Your task to perform on an android device: Open display settings Image 0: 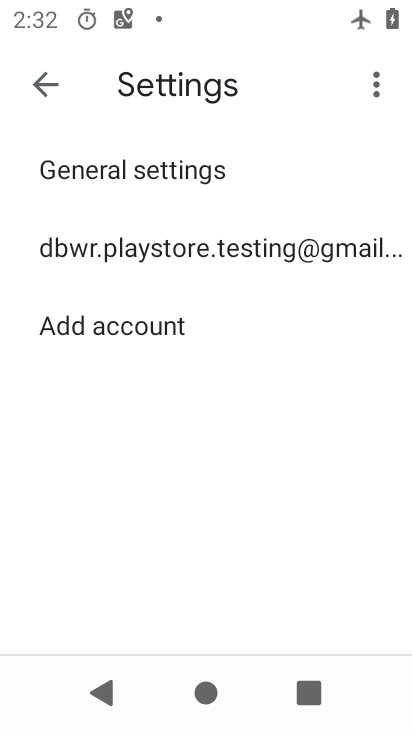
Step 0: press home button
Your task to perform on an android device: Open display settings Image 1: 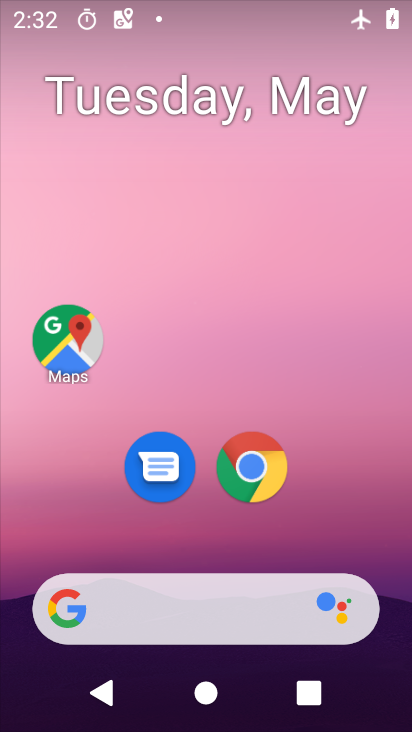
Step 1: drag from (350, 522) to (352, 184)
Your task to perform on an android device: Open display settings Image 2: 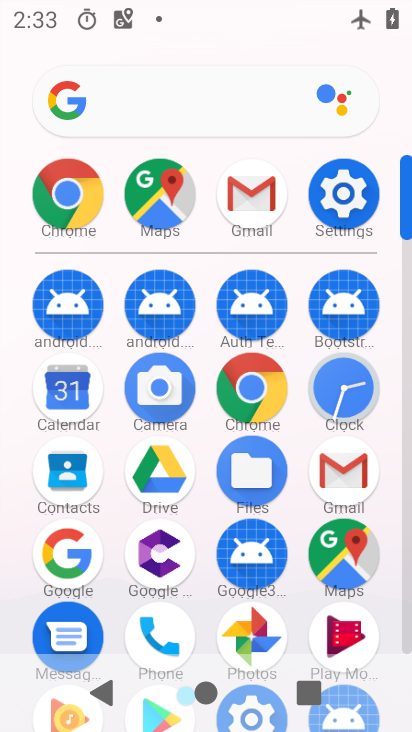
Step 2: click (359, 215)
Your task to perform on an android device: Open display settings Image 3: 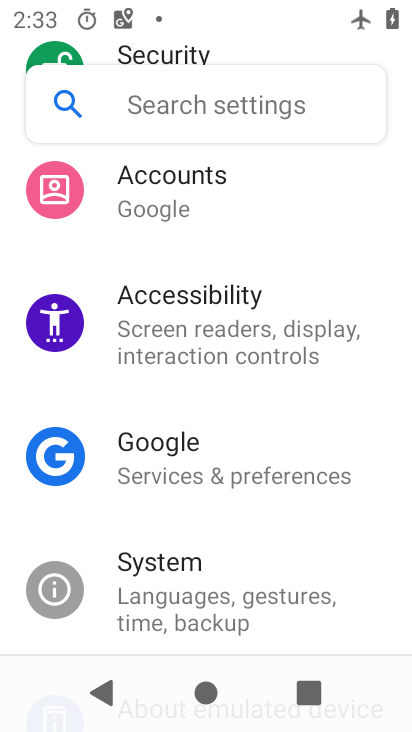
Step 3: drag from (341, 262) to (342, 369)
Your task to perform on an android device: Open display settings Image 4: 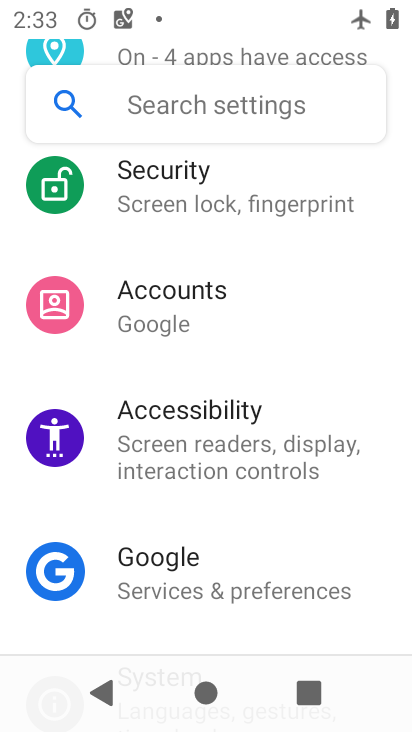
Step 4: drag from (342, 264) to (342, 365)
Your task to perform on an android device: Open display settings Image 5: 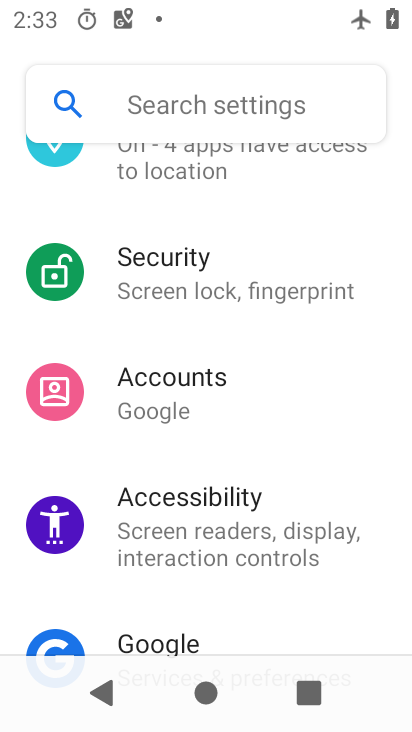
Step 5: drag from (353, 235) to (354, 367)
Your task to perform on an android device: Open display settings Image 6: 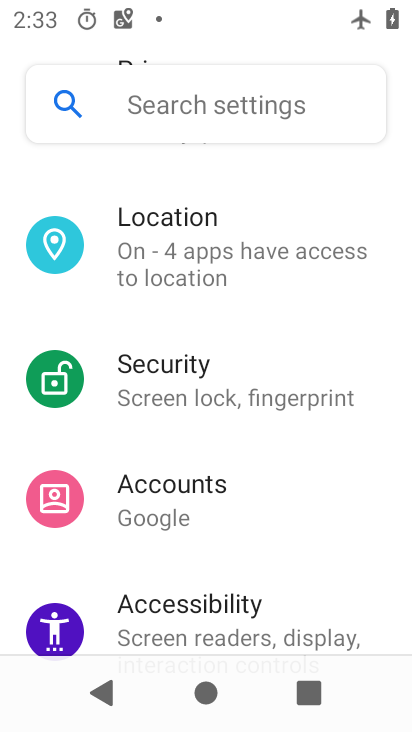
Step 6: drag from (378, 303) to (376, 412)
Your task to perform on an android device: Open display settings Image 7: 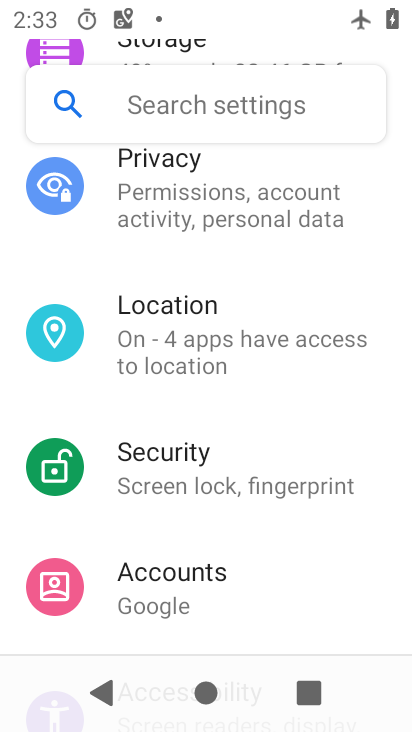
Step 7: drag from (376, 280) to (379, 393)
Your task to perform on an android device: Open display settings Image 8: 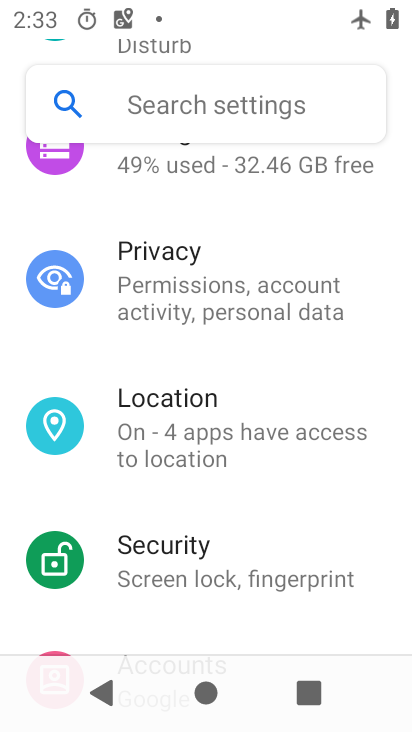
Step 8: drag from (361, 247) to (368, 345)
Your task to perform on an android device: Open display settings Image 9: 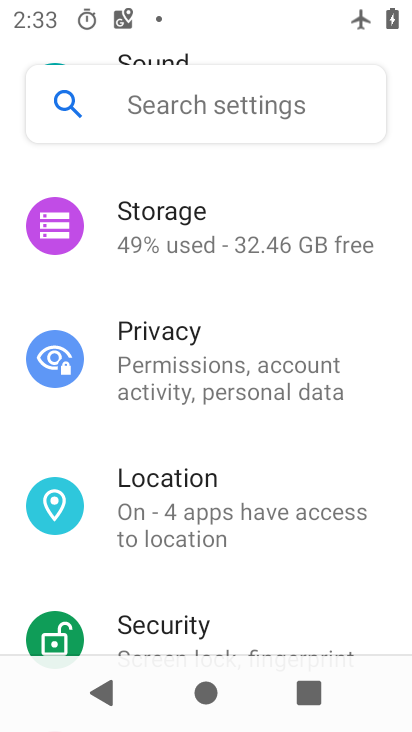
Step 9: drag from (376, 217) to (385, 346)
Your task to perform on an android device: Open display settings Image 10: 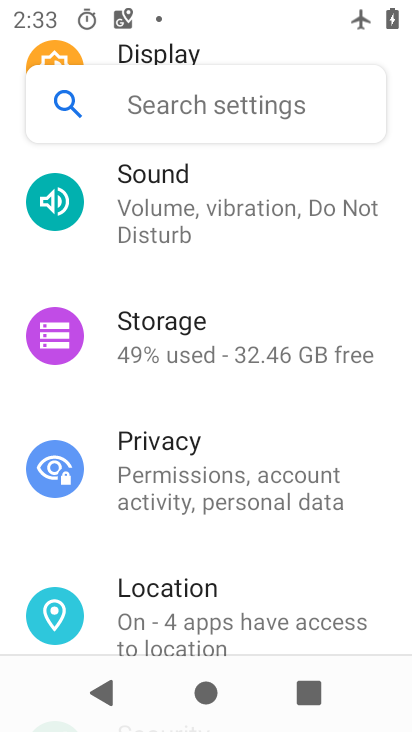
Step 10: drag from (380, 230) to (381, 333)
Your task to perform on an android device: Open display settings Image 11: 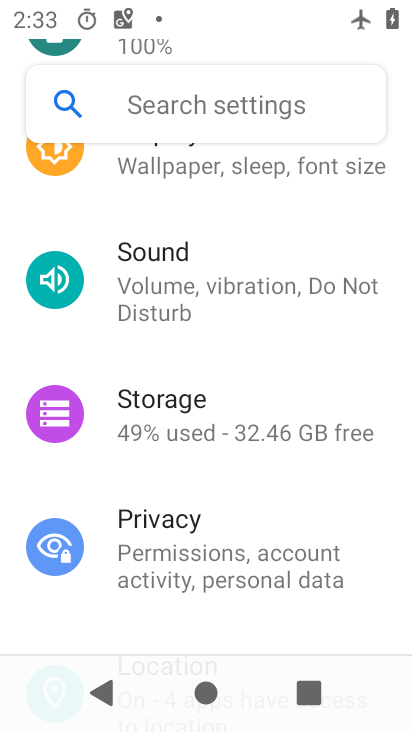
Step 11: drag from (387, 219) to (382, 349)
Your task to perform on an android device: Open display settings Image 12: 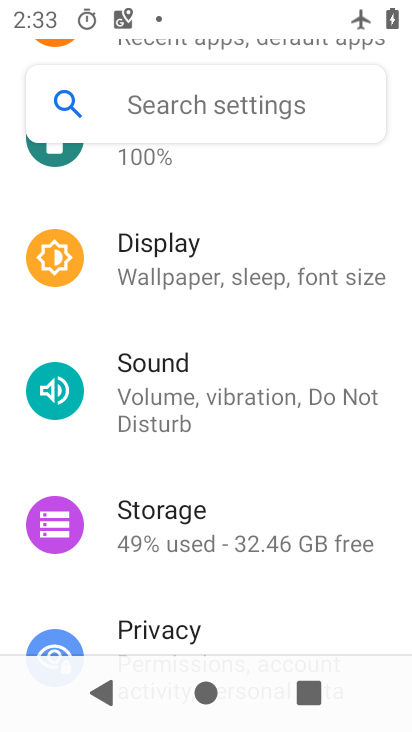
Step 12: drag from (381, 207) to (382, 357)
Your task to perform on an android device: Open display settings Image 13: 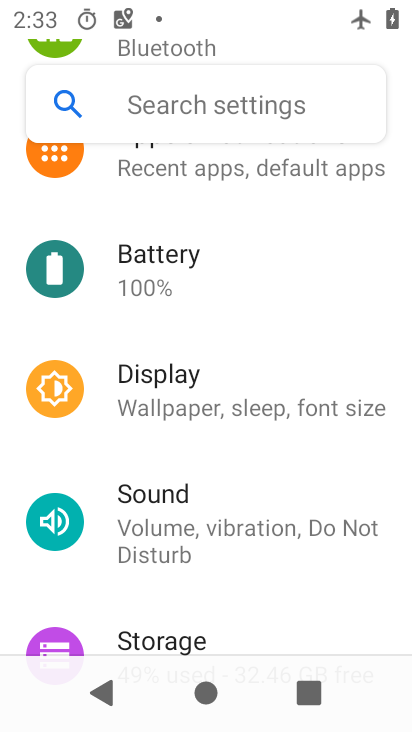
Step 13: drag from (365, 257) to (368, 382)
Your task to perform on an android device: Open display settings Image 14: 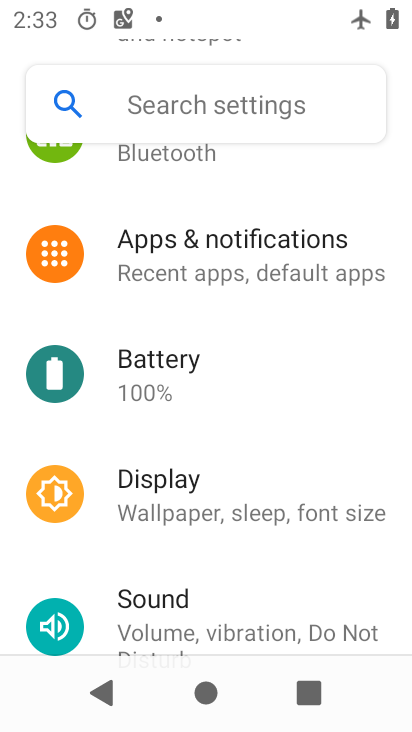
Step 14: click (267, 523)
Your task to perform on an android device: Open display settings Image 15: 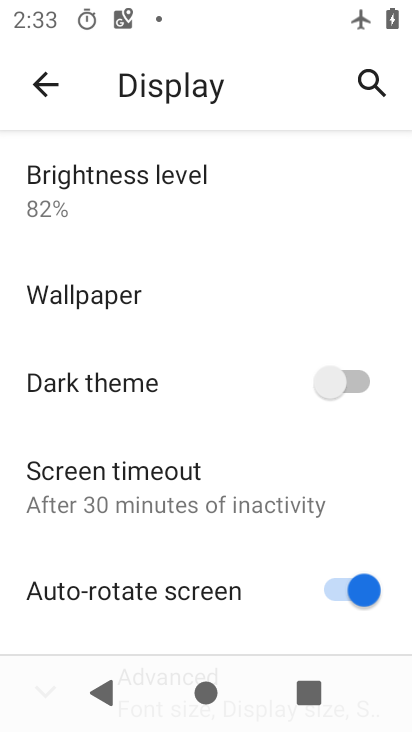
Step 15: task complete